Your task to perform on an android device: show emergency info Image 0: 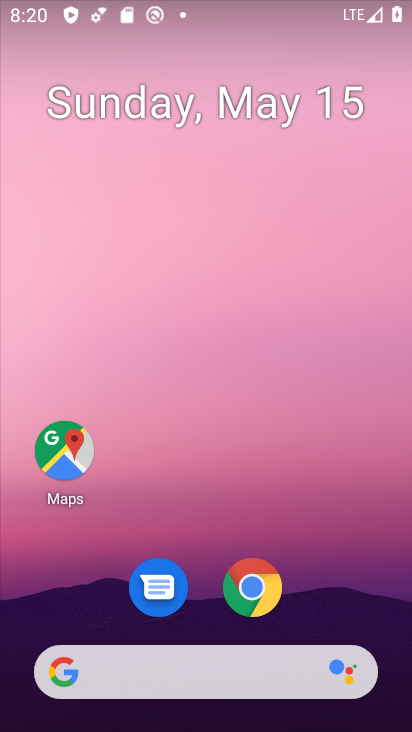
Step 0: drag from (206, 625) to (290, 272)
Your task to perform on an android device: show emergency info Image 1: 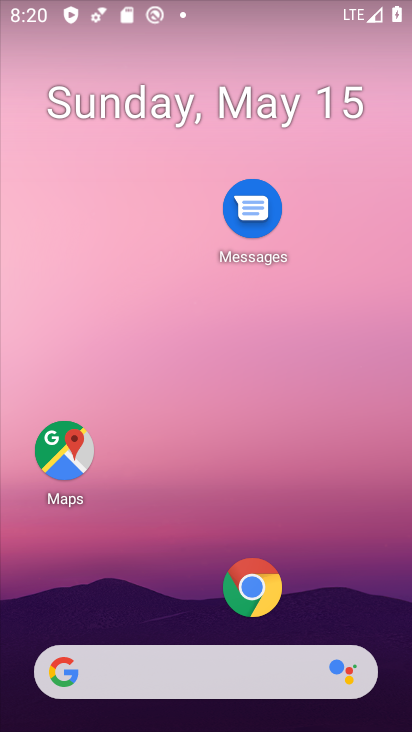
Step 1: drag from (178, 587) to (217, 228)
Your task to perform on an android device: show emergency info Image 2: 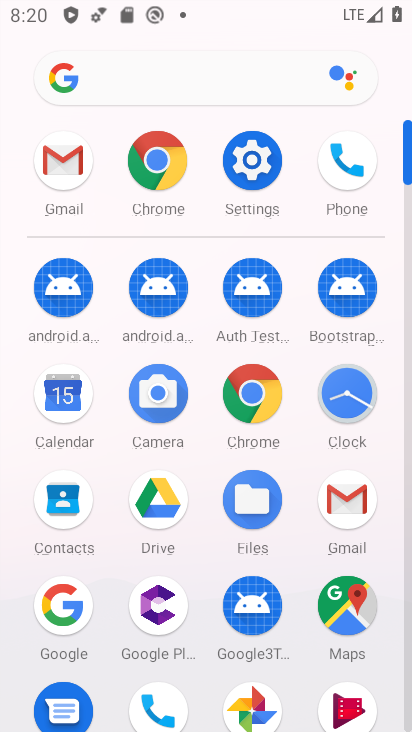
Step 2: click (253, 157)
Your task to perform on an android device: show emergency info Image 3: 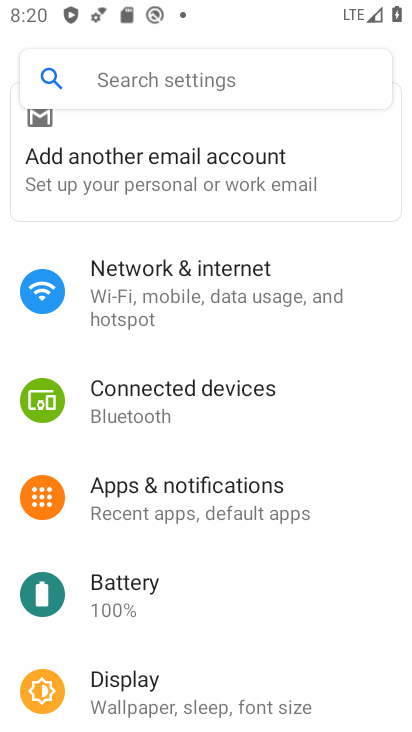
Step 3: drag from (264, 590) to (316, 186)
Your task to perform on an android device: show emergency info Image 4: 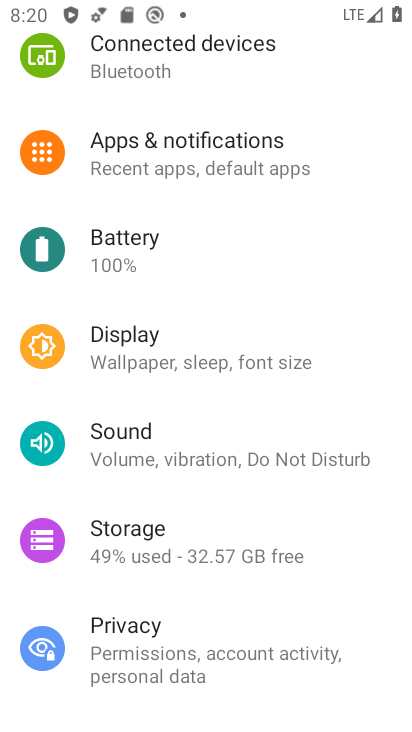
Step 4: drag from (275, 698) to (295, 267)
Your task to perform on an android device: show emergency info Image 5: 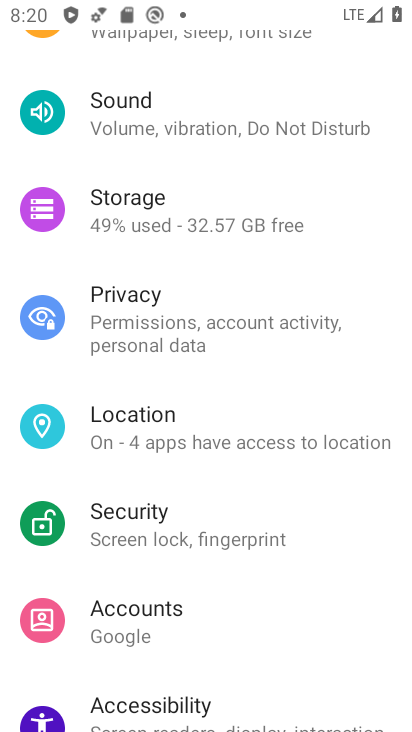
Step 5: drag from (257, 635) to (281, 255)
Your task to perform on an android device: show emergency info Image 6: 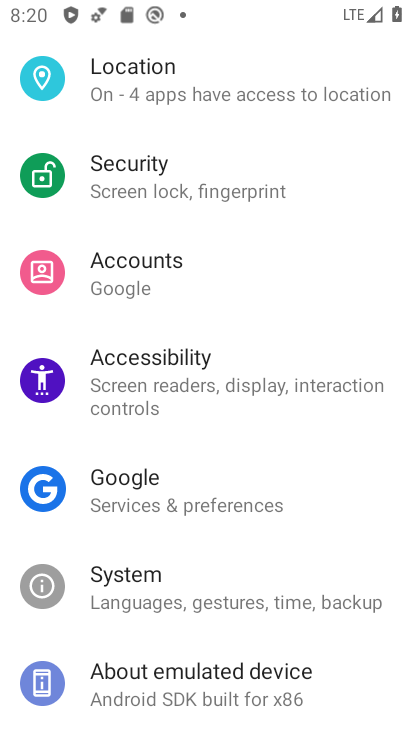
Step 6: click (185, 701)
Your task to perform on an android device: show emergency info Image 7: 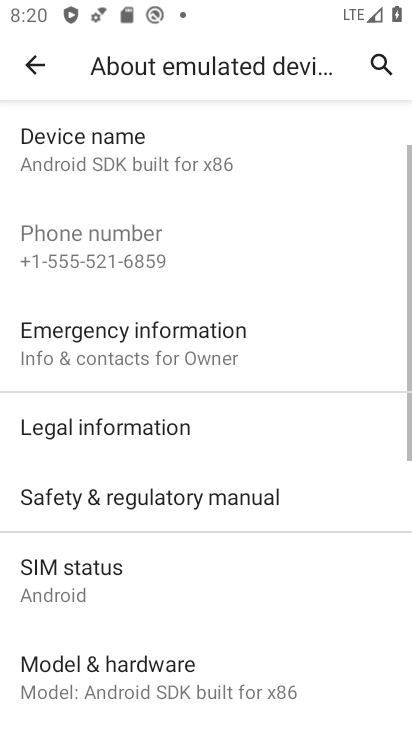
Step 7: click (94, 356)
Your task to perform on an android device: show emergency info Image 8: 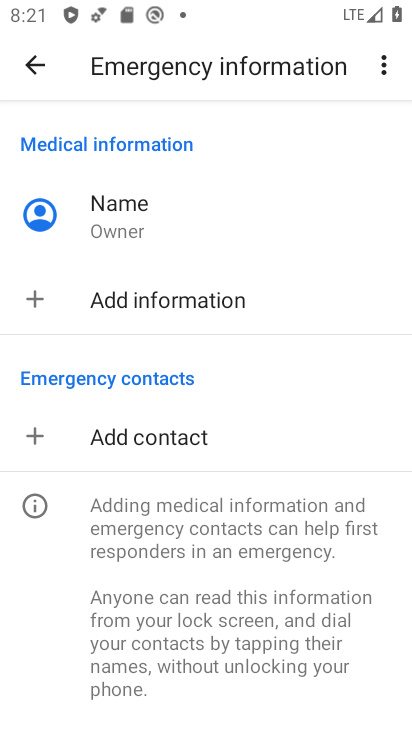
Step 8: task complete